Your task to perform on an android device: When is my next appointment? Image 0: 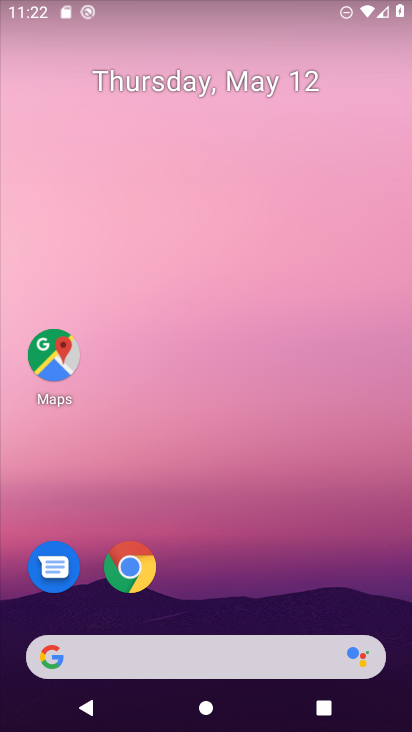
Step 0: drag from (272, 612) to (347, 257)
Your task to perform on an android device: When is my next appointment? Image 1: 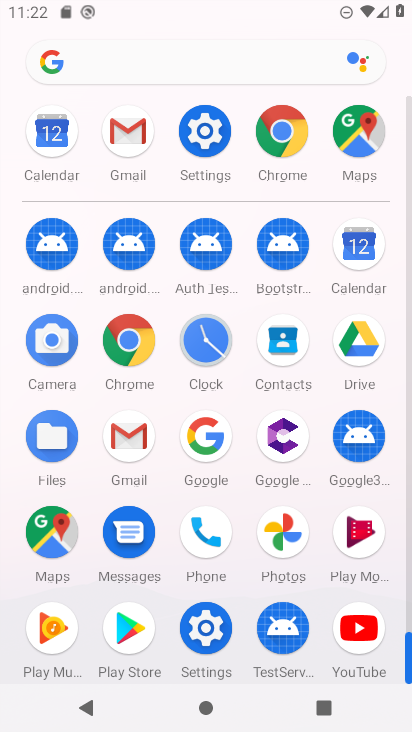
Step 1: click (359, 280)
Your task to perform on an android device: When is my next appointment? Image 2: 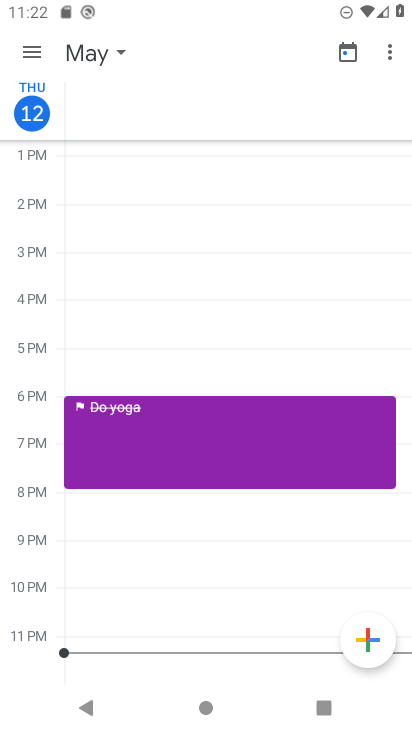
Step 2: click (100, 60)
Your task to perform on an android device: When is my next appointment? Image 3: 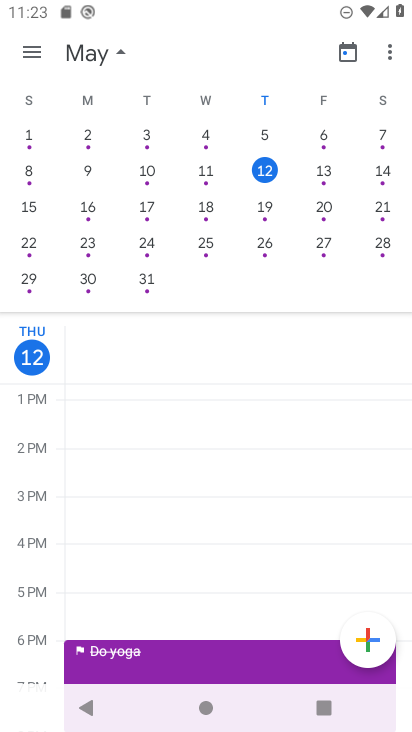
Step 3: task complete